Your task to perform on an android device: turn on notifications settings in the gmail app Image 0: 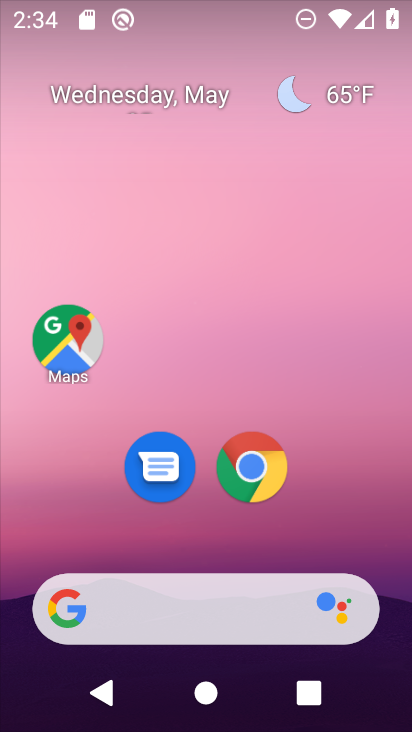
Step 0: drag from (315, 560) to (303, 144)
Your task to perform on an android device: turn on notifications settings in the gmail app Image 1: 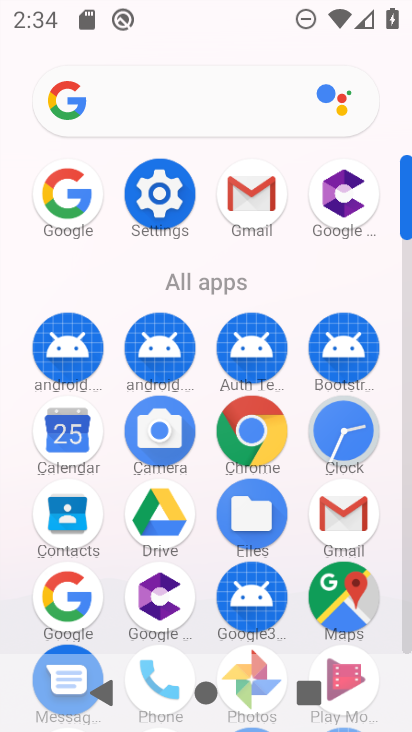
Step 1: click (337, 494)
Your task to perform on an android device: turn on notifications settings in the gmail app Image 2: 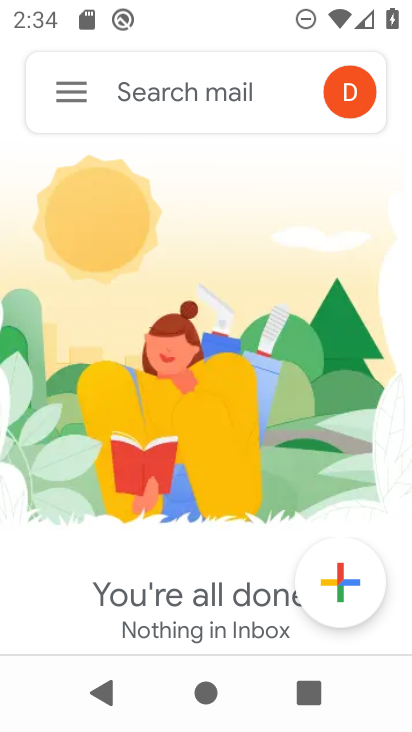
Step 2: click (68, 87)
Your task to perform on an android device: turn on notifications settings in the gmail app Image 3: 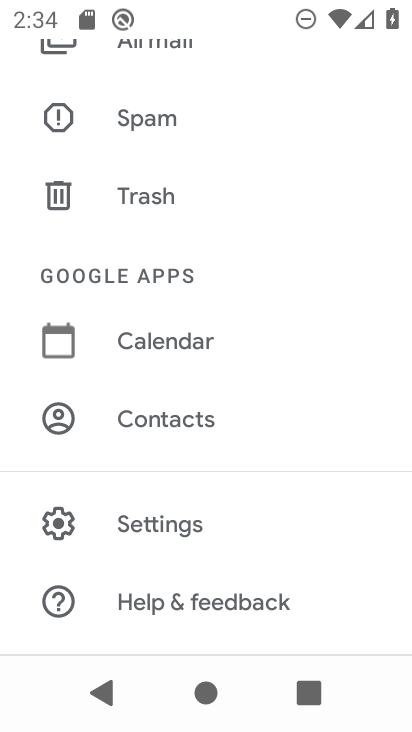
Step 3: click (175, 506)
Your task to perform on an android device: turn on notifications settings in the gmail app Image 4: 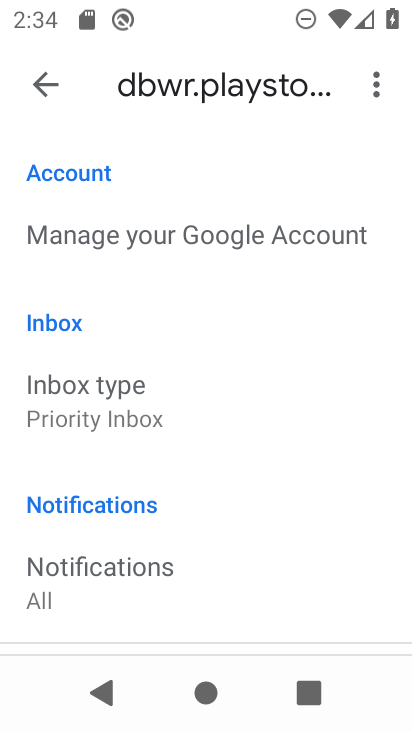
Step 4: click (144, 557)
Your task to perform on an android device: turn on notifications settings in the gmail app Image 5: 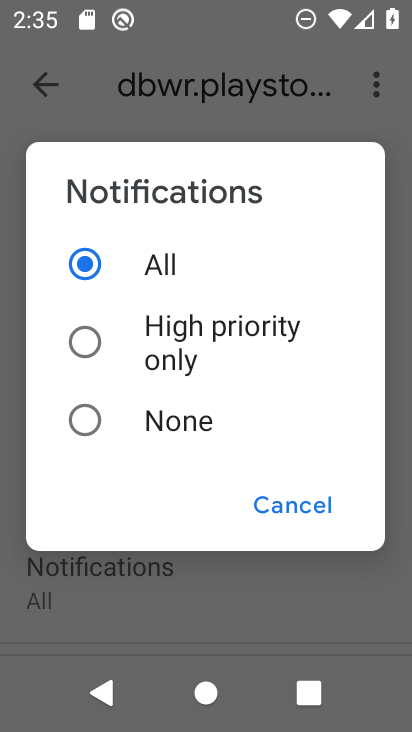
Step 5: click (154, 263)
Your task to perform on an android device: turn on notifications settings in the gmail app Image 6: 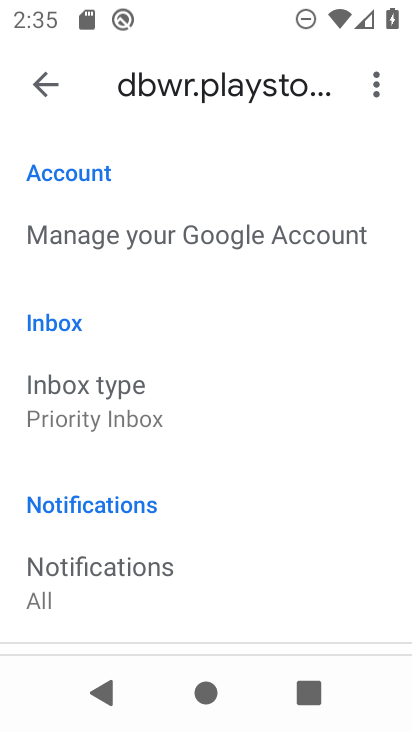
Step 6: task complete